Your task to perform on an android device: What's on my calendar tomorrow? Image 0: 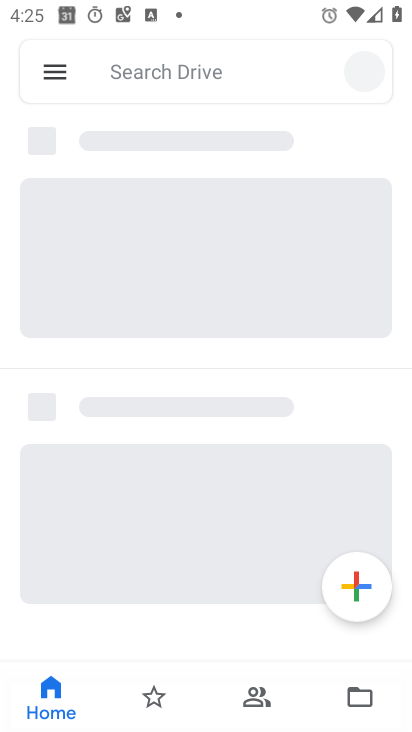
Step 0: press home button
Your task to perform on an android device: What's on my calendar tomorrow? Image 1: 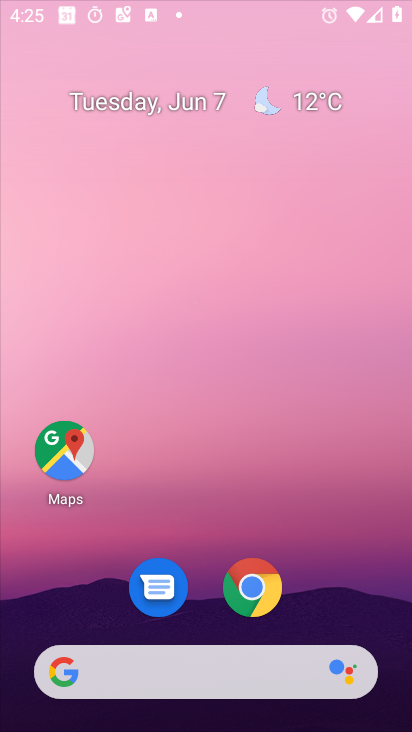
Step 1: drag from (227, 676) to (272, 115)
Your task to perform on an android device: What's on my calendar tomorrow? Image 2: 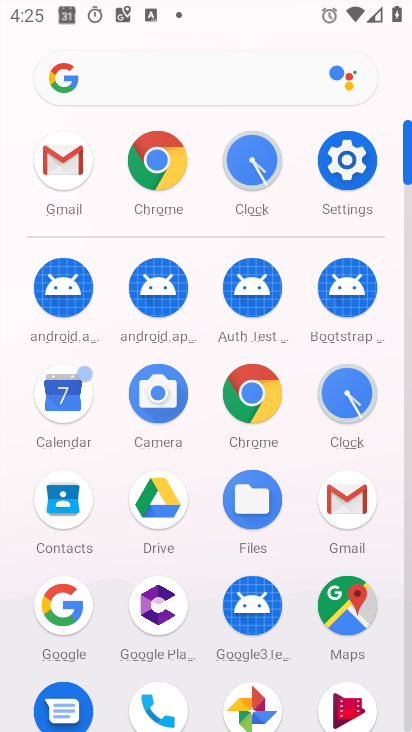
Step 2: click (77, 393)
Your task to perform on an android device: What's on my calendar tomorrow? Image 3: 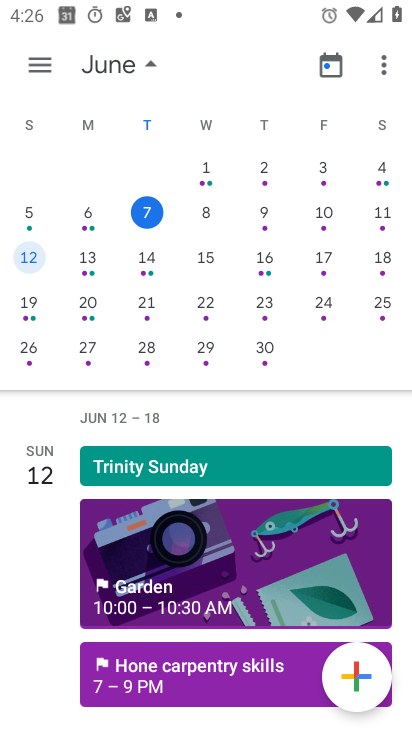
Step 3: click (198, 218)
Your task to perform on an android device: What's on my calendar tomorrow? Image 4: 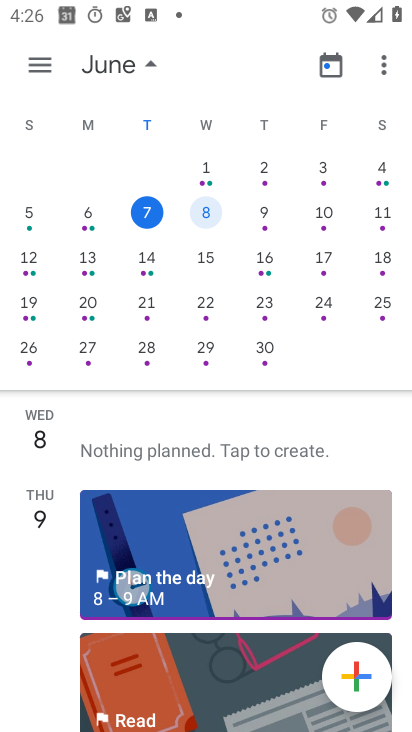
Step 4: task complete